Your task to perform on an android device: Go to privacy settings Image 0: 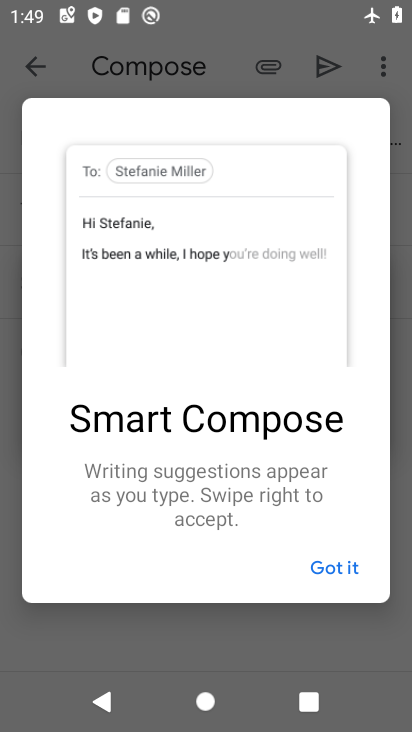
Step 0: press home button
Your task to perform on an android device: Go to privacy settings Image 1: 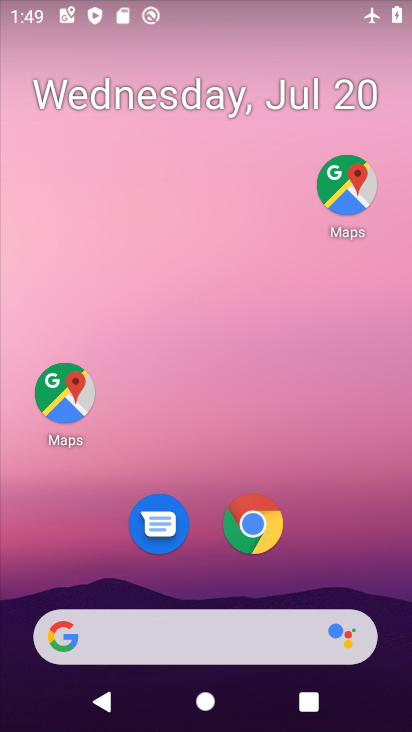
Step 1: drag from (329, 529) to (352, 67)
Your task to perform on an android device: Go to privacy settings Image 2: 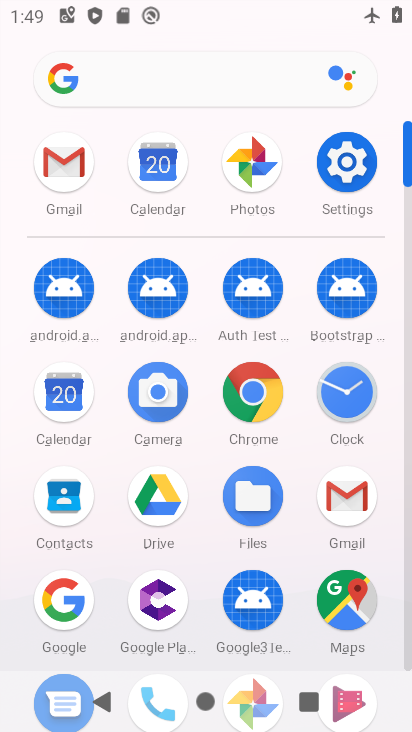
Step 2: click (345, 166)
Your task to perform on an android device: Go to privacy settings Image 3: 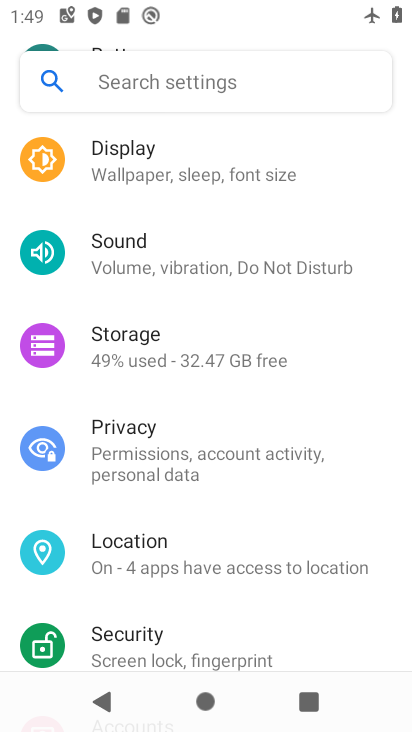
Step 3: click (200, 432)
Your task to perform on an android device: Go to privacy settings Image 4: 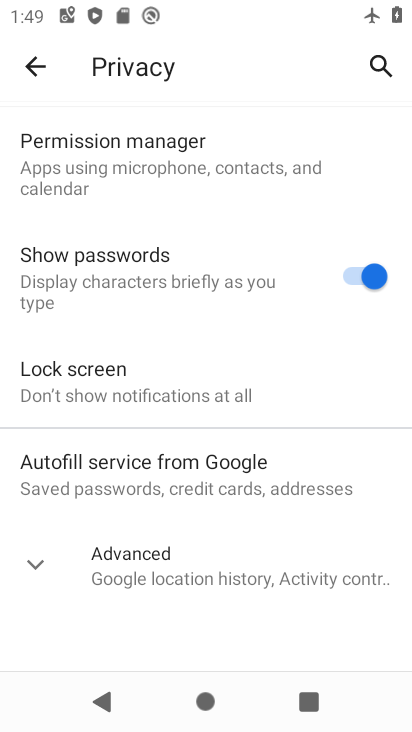
Step 4: task complete